Your task to perform on an android device: turn off location Image 0: 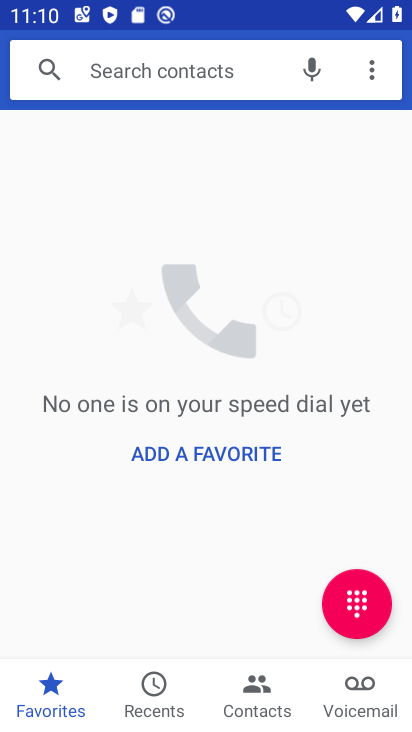
Step 0: press home button
Your task to perform on an android device: turn off location Image 1: 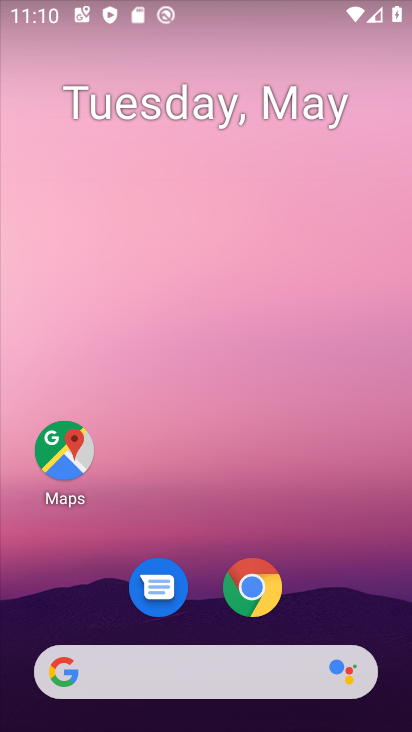
Step 1: drag from (309, 498) to (240, 11)
Your task to perform on an android device: turn off location Image 2: 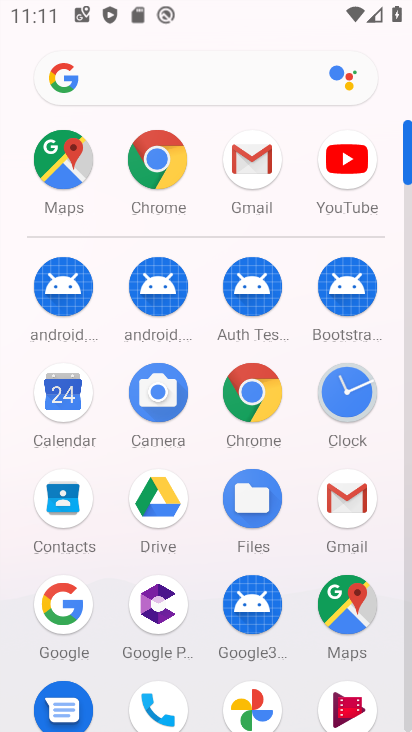
Step 2: drag from (9, 582) to (20, 263)
Your task to perform on an android device: turn off location Image 3: 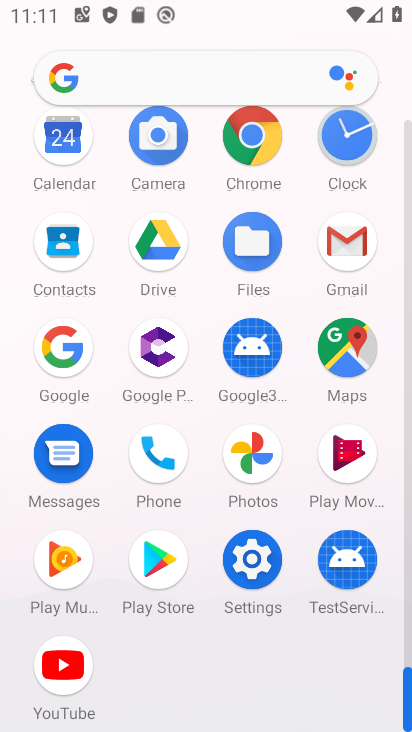
Step 3: click (251, 556)
Your task to perform on an android device: turn off location Image 4: 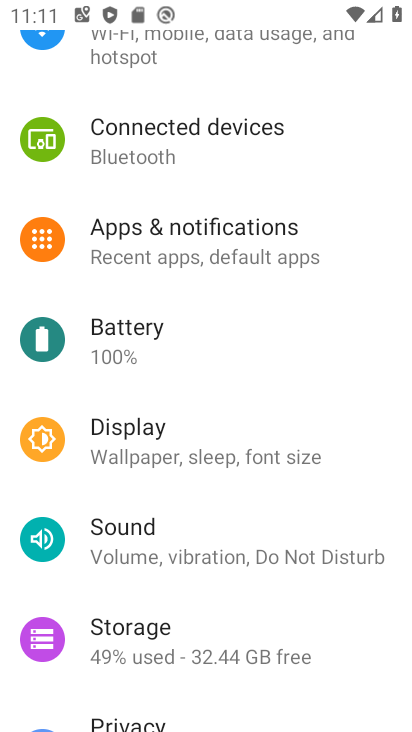
Step 4: drag from (262, 168) to (277, 568)
Your task to perform on an android device: turn off location Image 5: 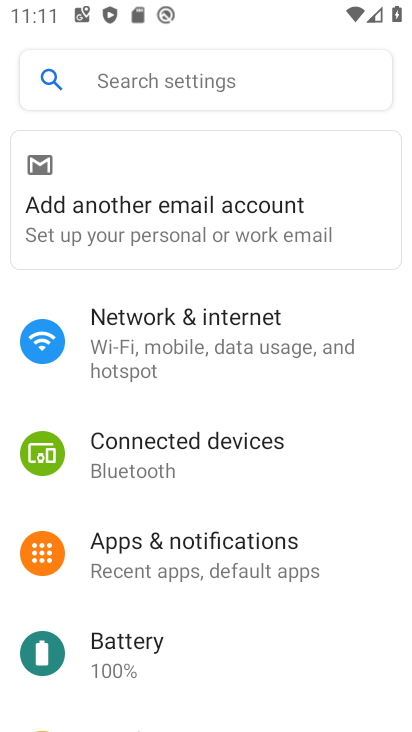
Step 5: drag from (291, 608) to (355, 145)
Your task to perform on an android device: turn off location Image 6: 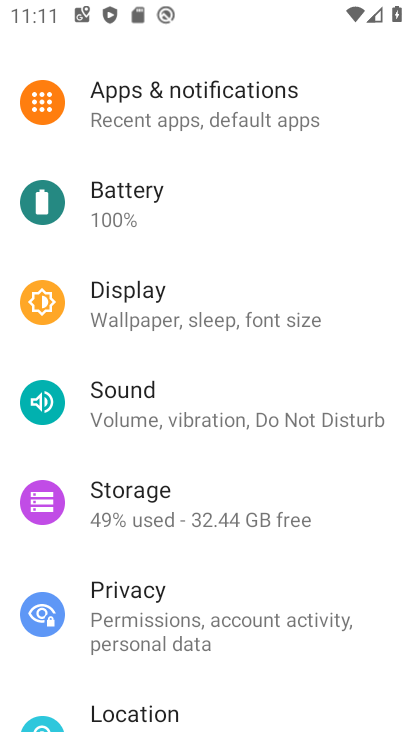
Step 6: click (184, 717)
Your task to perform on an android device: turn off location Image 7: 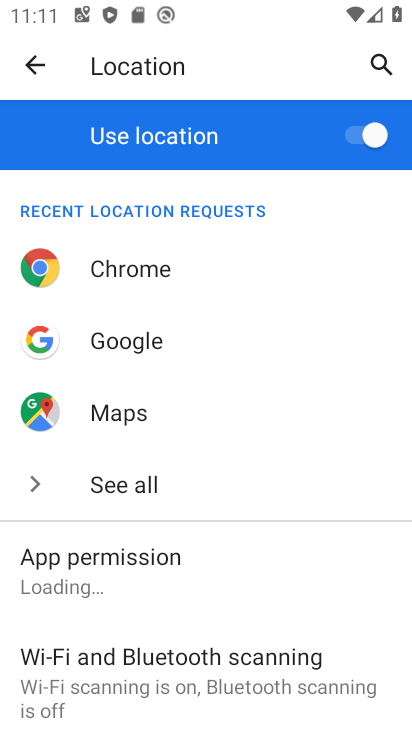
Step 7: click (358, 135)
Your task to perform on an android device: turn off location Image 8: 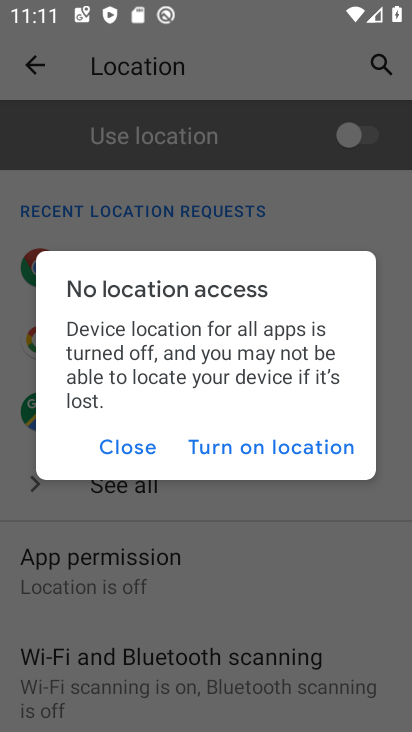
Step 8: click (123, 446)
Your task to perform on an android device: turn off location Image 9: 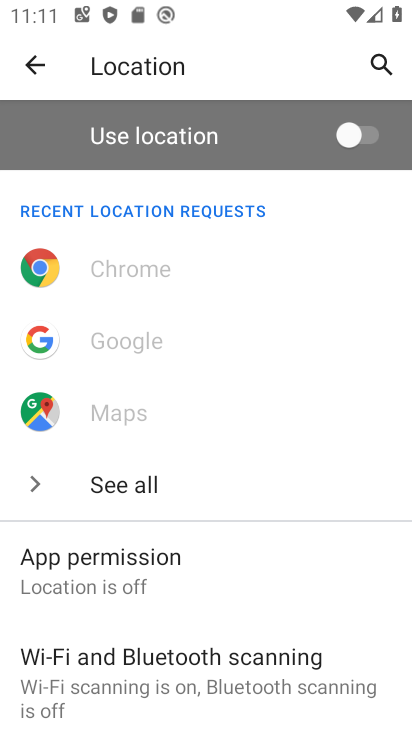
Step 9: task complete